Your task to perform on an android device: Play the last video I watched on Youtube Image 0: 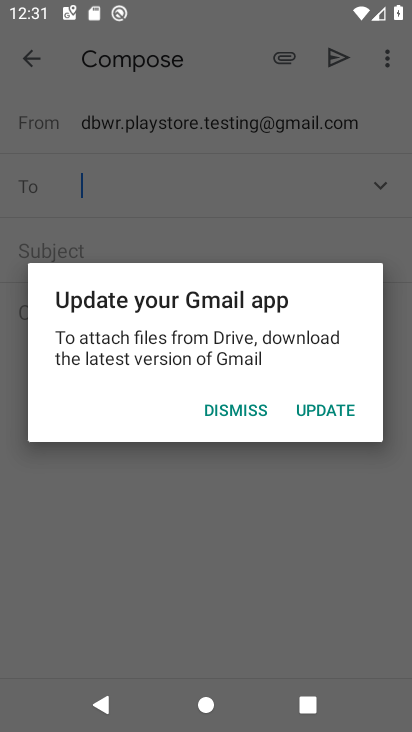
Step 0: press home button
Your task to perform on an android device: Play the last video I watched on Youtube Image 1: 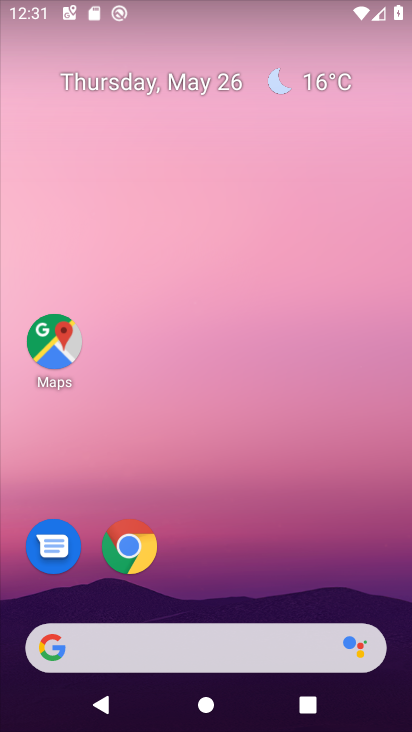
Step 1: drag from (179, 581) to (253, 164)
Your task to perform on an android device: Play the last video I watched on Youtube Image 2: 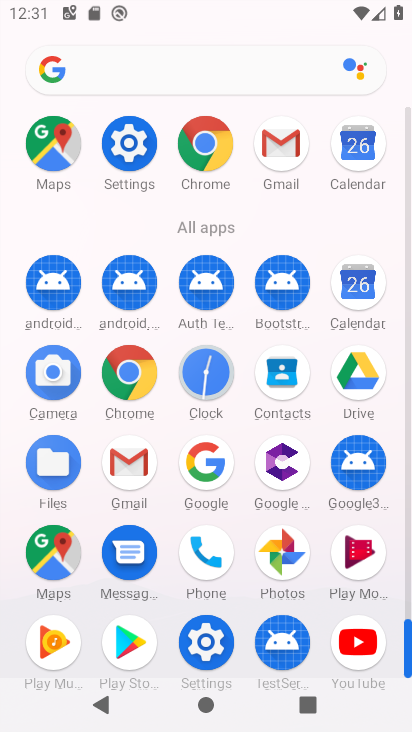
Step 2: click (363, 644)
Your task to perform on an android device: Play the last video I watched on Youtube Image 3: 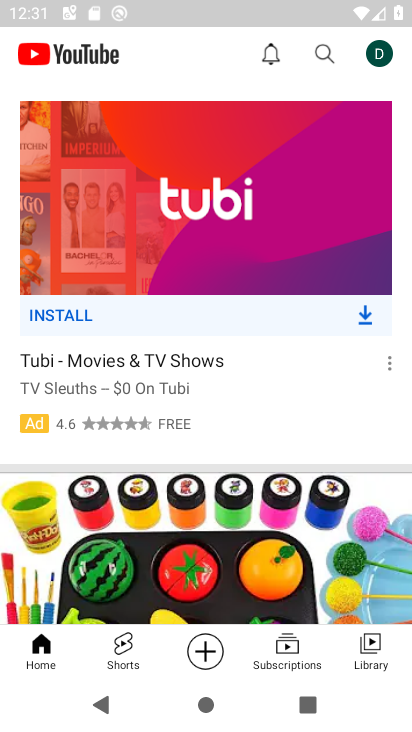
Step 3: click (377, 640)
Your task to perform on an android device: Play the last video I watched on Youtube Image 4: 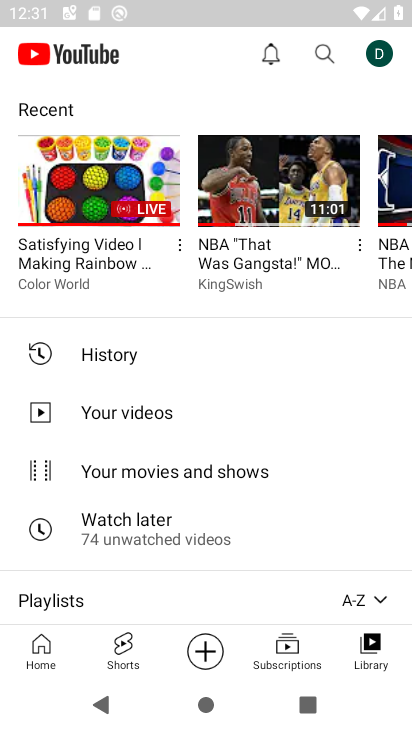
Step 4: task complete